Your task to perform on an android device: turn on showing notifications on the lock screen Image 0: 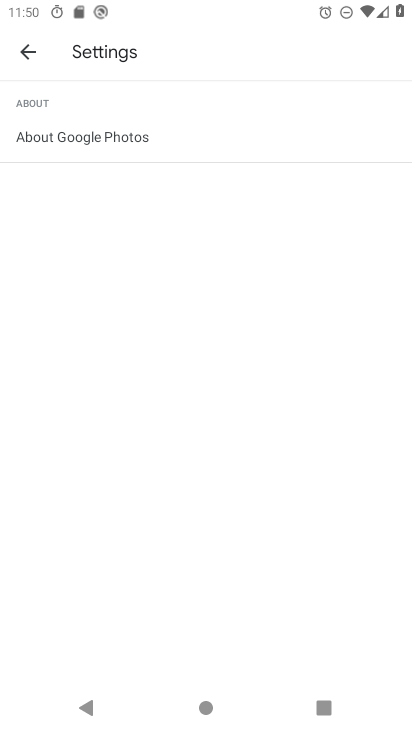
Step 0: press home button
Your task to perform on an android device: turn on showing notifications on the lock screen Image 1: 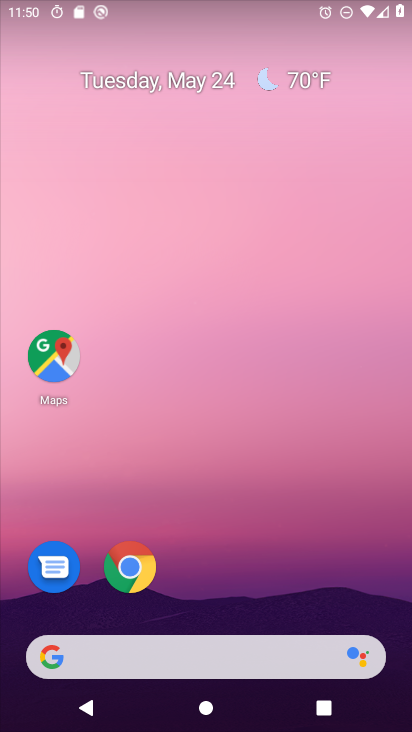
Step 1: drag from (401, 692) to (355, 321)
Your task to perform on an android device: turn on showing notifications on the lock screen Image 2: 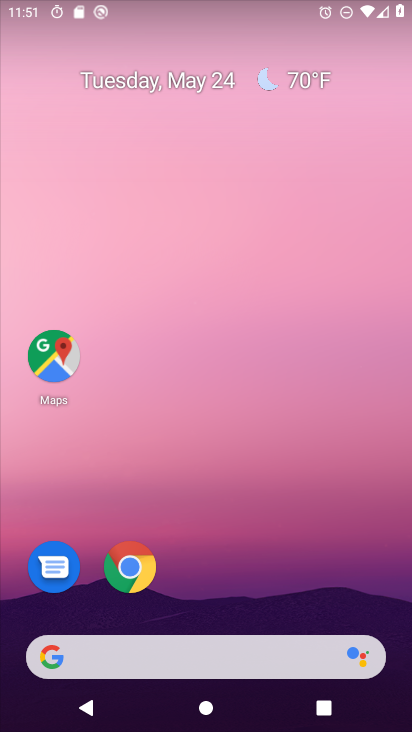
Step 2: drag from (393, 690) to (368, 271)
Your task to perform on an android device: turn on showing notifications on the lock screen Image 3: 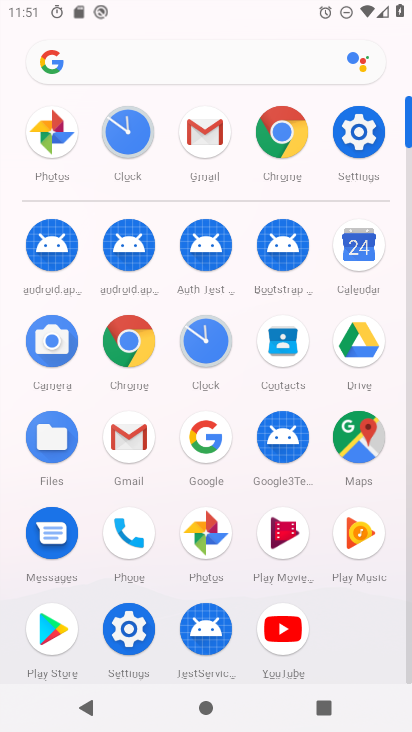
Step 3: click (363, 123)
Your task to perform on an android device: turn on showing notifications on the lock screen Image 4: 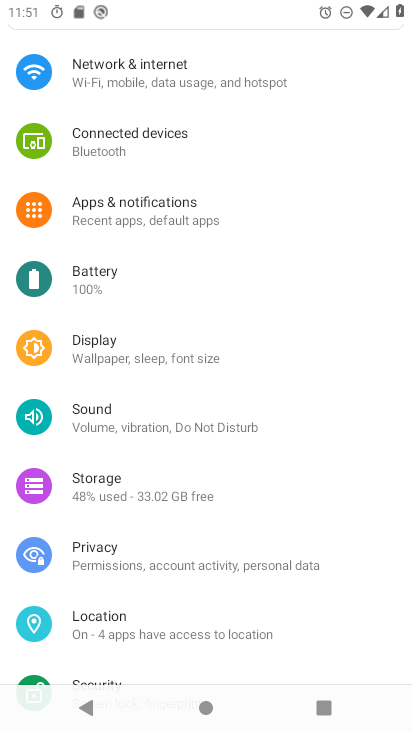
Step 4: click (99, 216)
Your task to perform on an android device: turn on showing notifications on the lock screen Image 5: 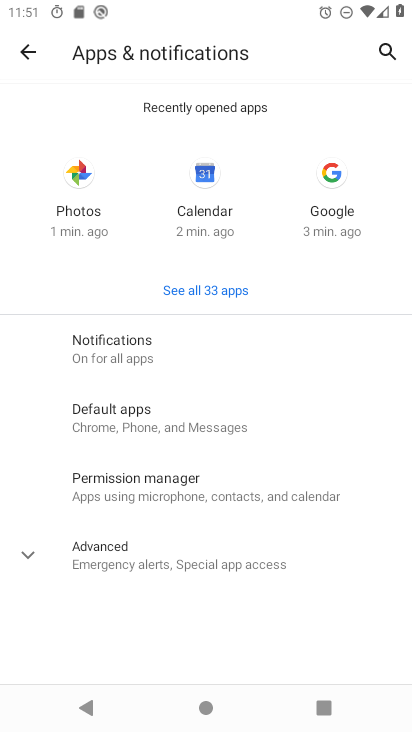
Step 5: click (98, 349)
Your task to perform on an android device: turn on showing notifications on the lock screen Image 6: 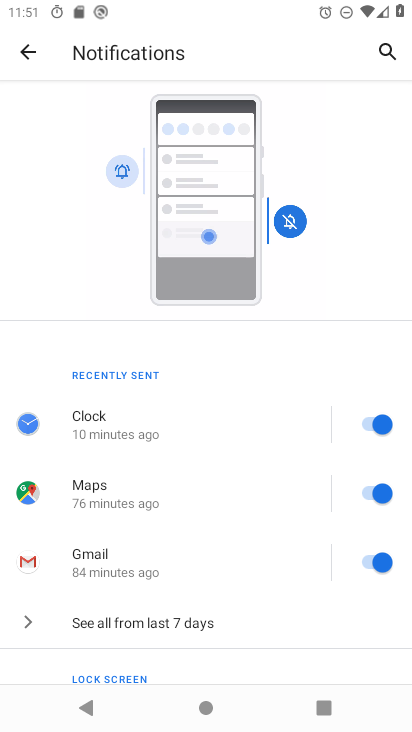
Step 6: drag from (258, 668) to (264, 273)
Your task to perform on an android device: turn on showing notifications on the lock screen Image 7: 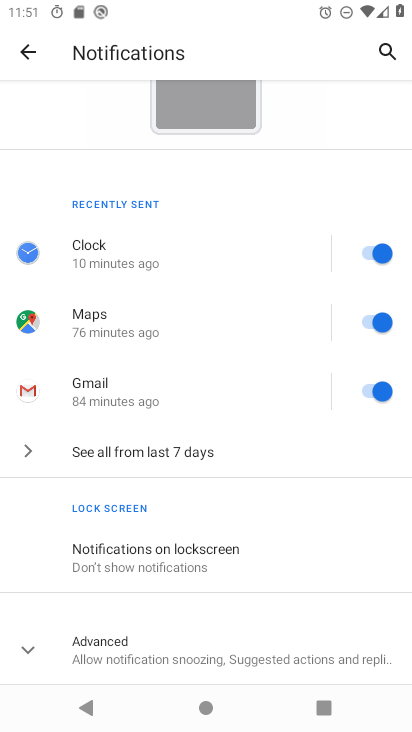
Step 7: click (136, 561)
Your task to perform on an android device: turn on showing notifications on the lock screen Image 8: 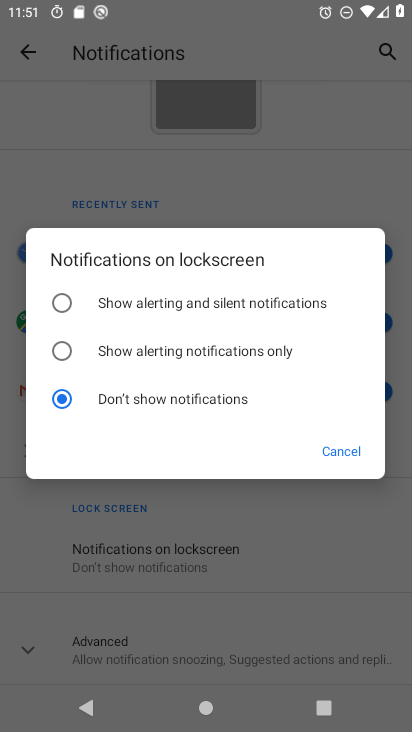
Step 8: click (59, 285)
Your task to perform on an android device: turn on showing notifications on the lock screen Image 9: 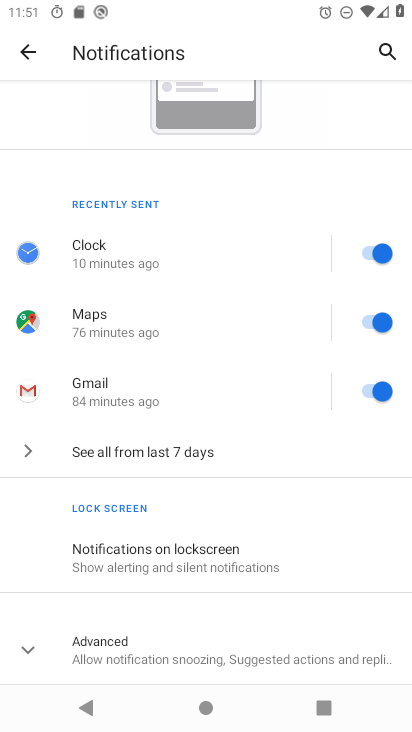
Step 9: task complete